Your task to perform on an android device: Open eBay Image 0: 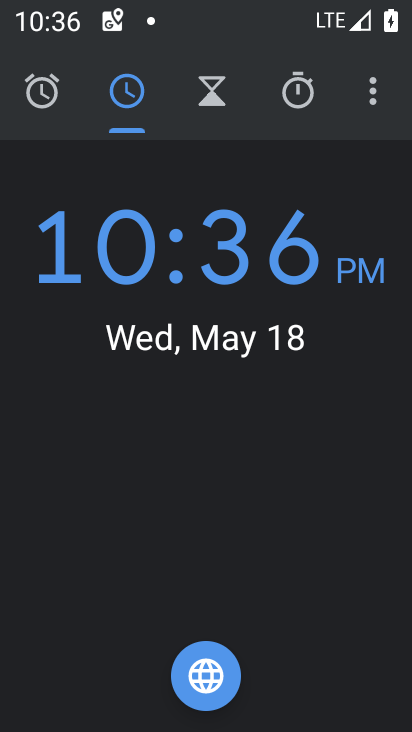
Step 0: press home button
Your task to perform on an android device: Open eBay Image 1: 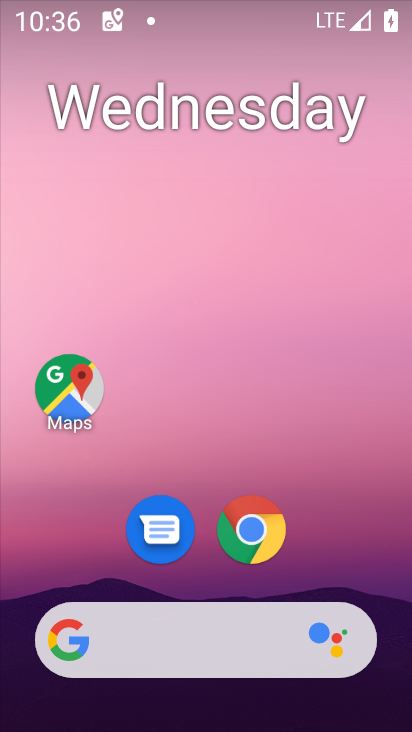
Step 1: click (258, 531)
Your task to perform on an android device: Open eBay Image 2: 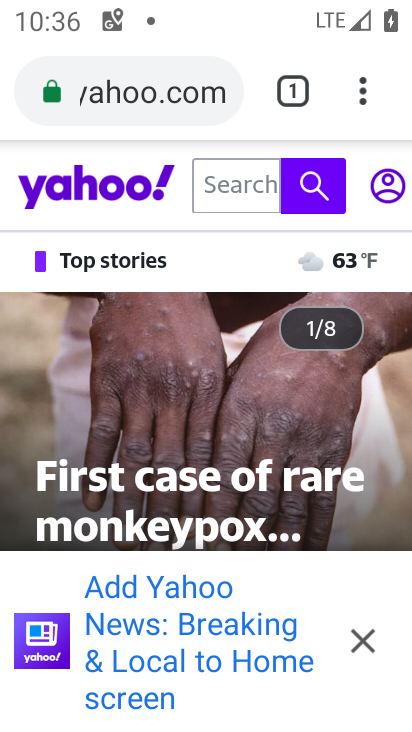
Step 2: click (150, 92)
Your task to perform on an android device: Open eBay Image 3: 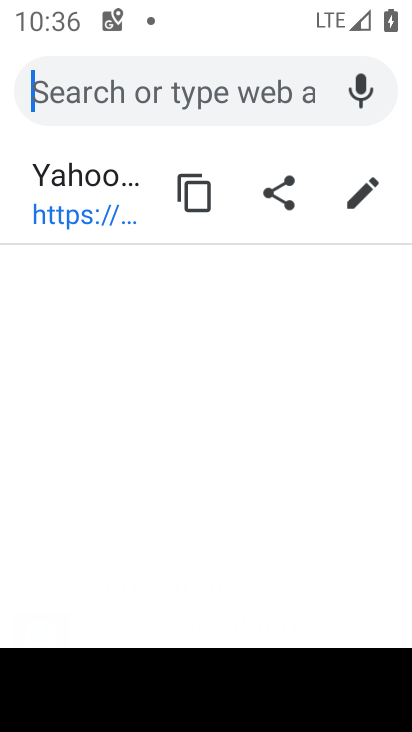
Step 3: type "ebay"
Your task to perform on an android device: Open eBay Image 4: 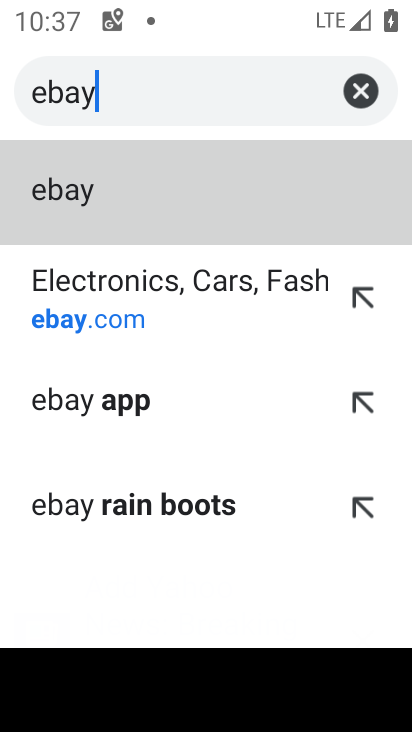
Step 4: click (105, 218)
Your task to perform on an android device: Open eBay Image 5: 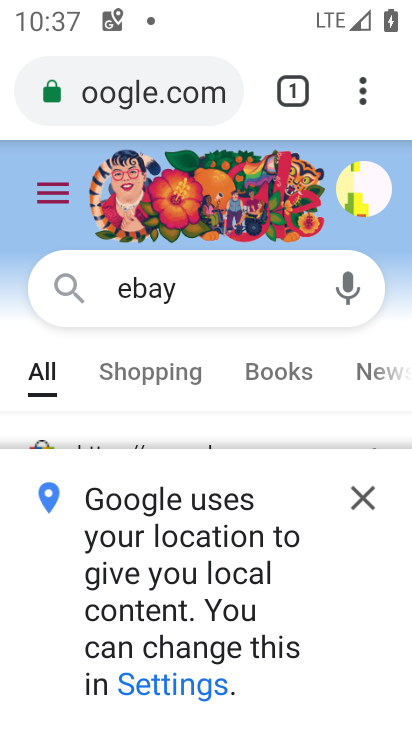
Step 5: click (360, 497)
Your task to perform on an android device: Open eBay Image 6: 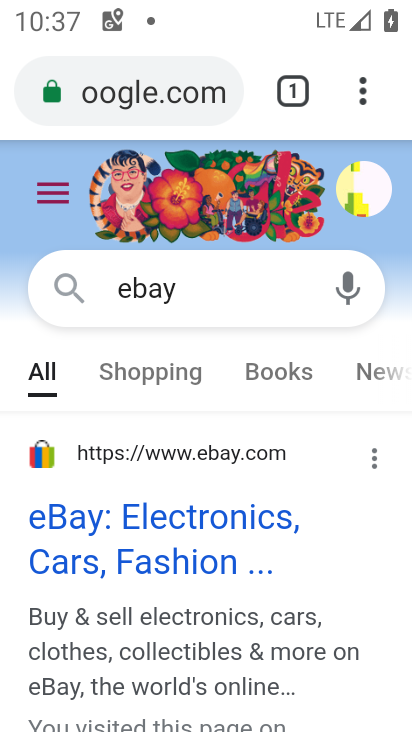
Step 6: click (120, 558)
Your task to perform on an android device: Open eBay Image 7: 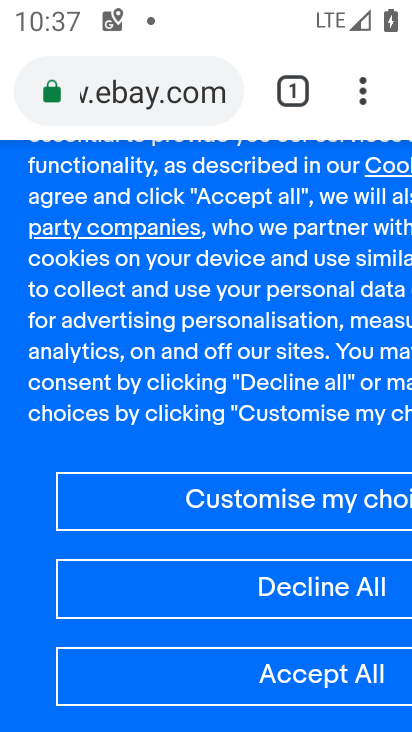
Step 7: task complete